Your task to perform on an android device: turn off wifi Image 0: 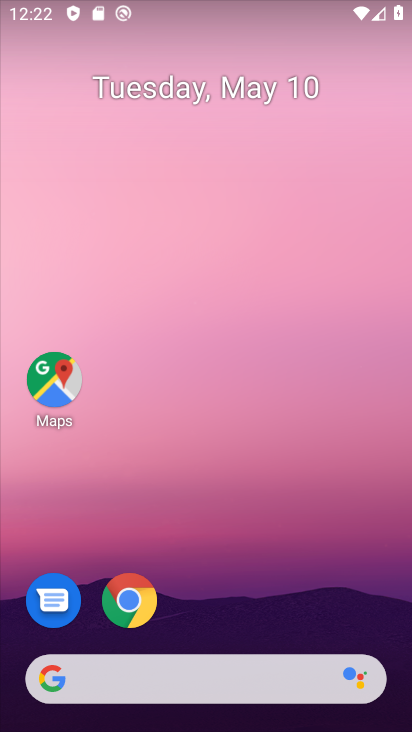
Step 0: drag from (185, 654) to (301, 93)
Your task to perform on an android device: turn off wifi Image 1: 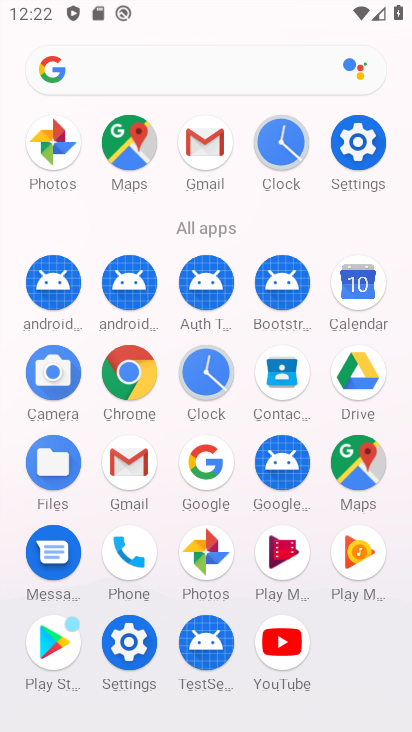
Step 1: click (117, 642)
Your task to perform on an android device: turn off wifi Image 2: 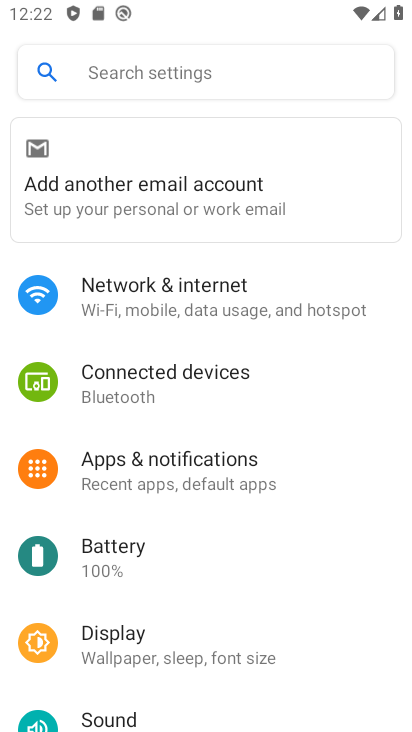
Step 2: click (207, 311)
Your task to perform on an android device: turn off wifi Image 3: 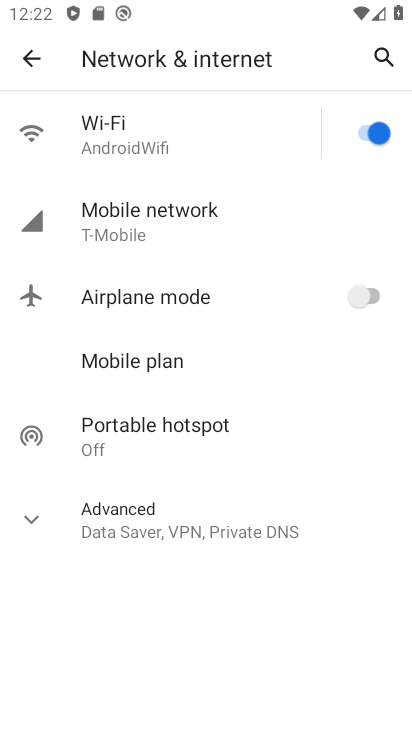
Step 3: click (365, 124)
Your task to perform on an android device: turn off wifi Image 4: 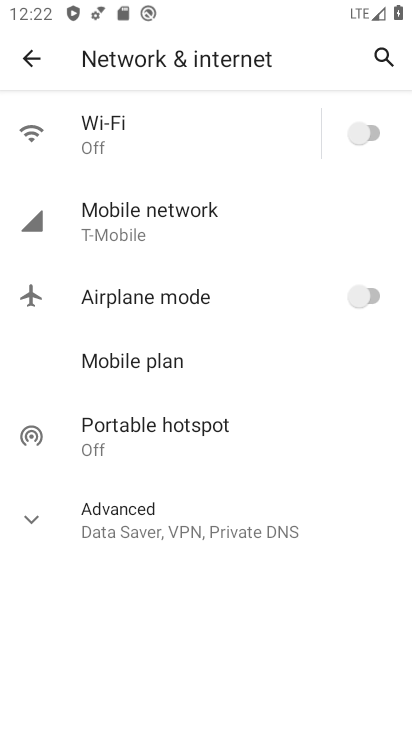
Step 4: task complete